Your task to perform on an android device: Go to calendar. Show me events next week Image 0: 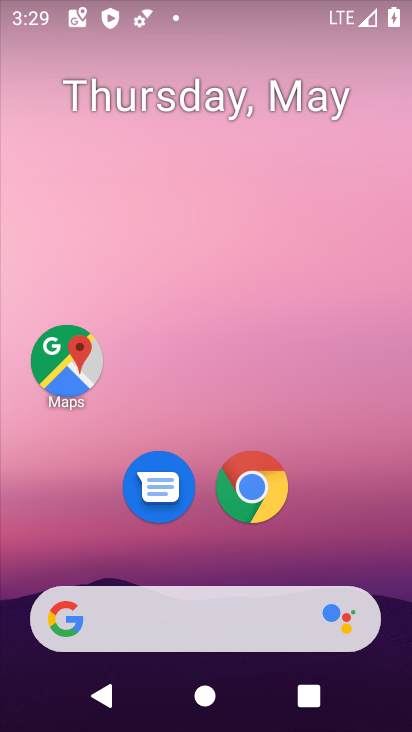
Step 0: drag from (220, 501) to (285, 87)
Your task to perform on an android device: Go to calendar. Show me events next week Image 1: 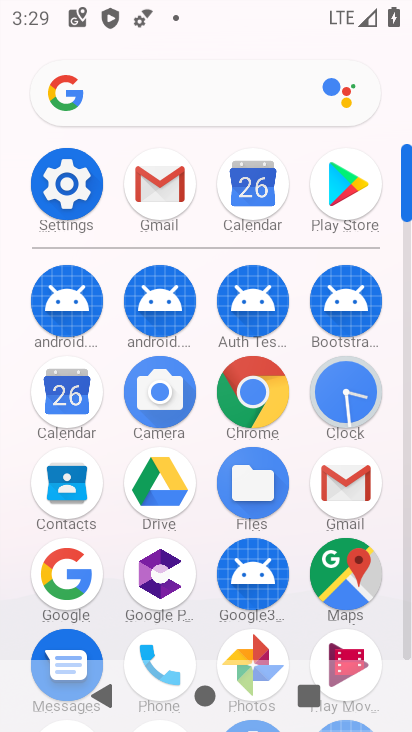
Step 1: drag from (192, 474) to (251, 204)
Your task to perform on an android device: Go to calendar. Show me events next week Image 2: 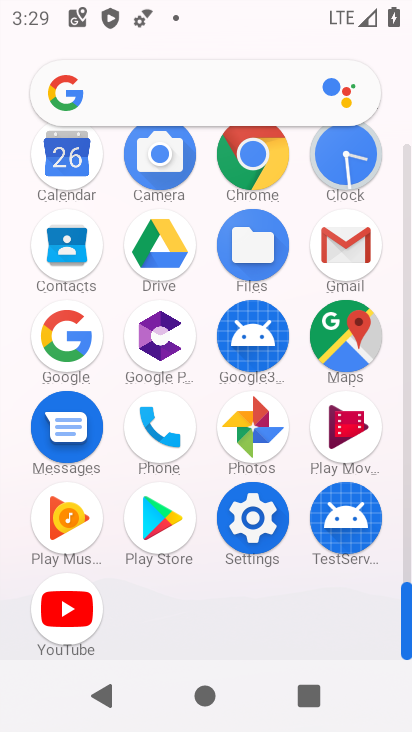
Step 2: click (73, 171)
Your task to perform on an android device: Go to calendar. Show me events next week Image 3: 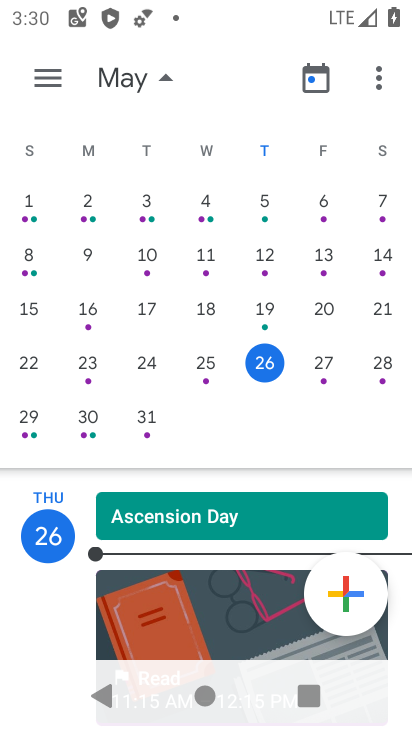
Step 3: task complete